Your task to perform on an android device: Open Google Maps Image 0: 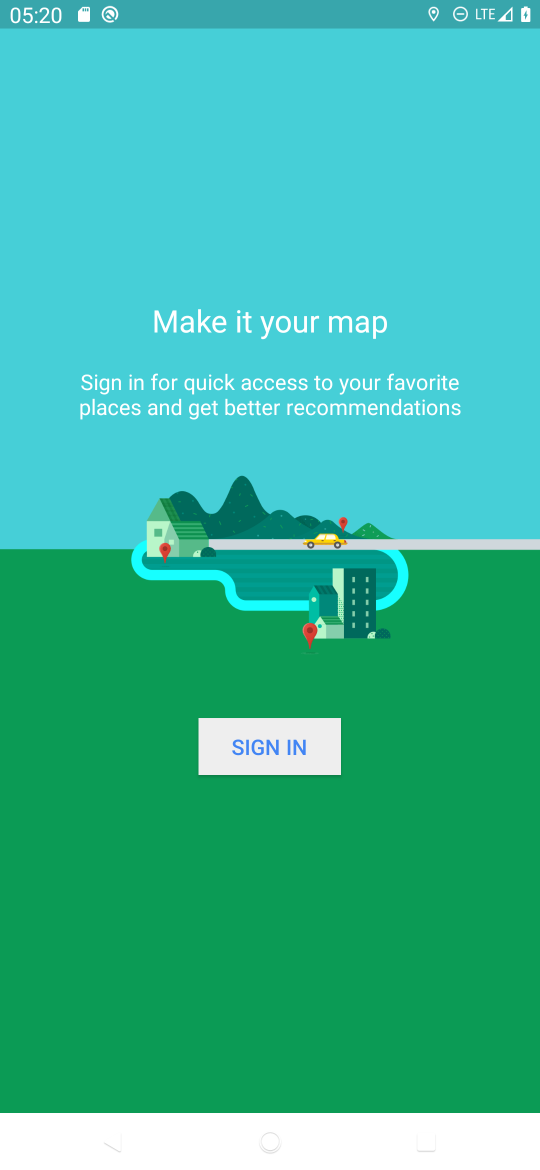
Step 0: press home button
Your task to perform on an android device: Open Google Maps Image 1: 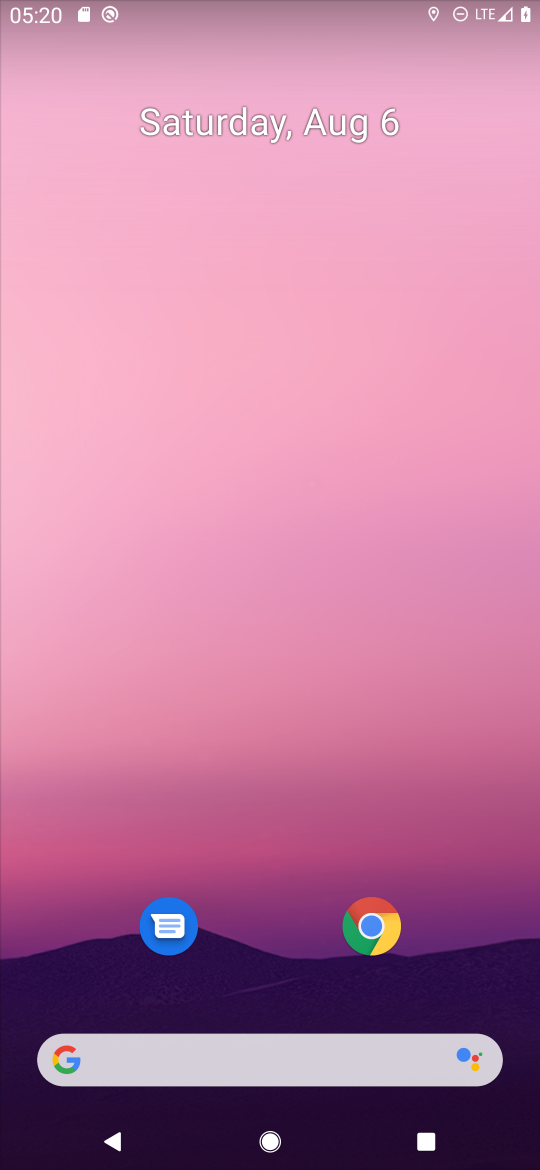
Step 1: drag from (273, 918) to (283, 318)
Your task to perform on an android device: Open Google Maps Image 2: 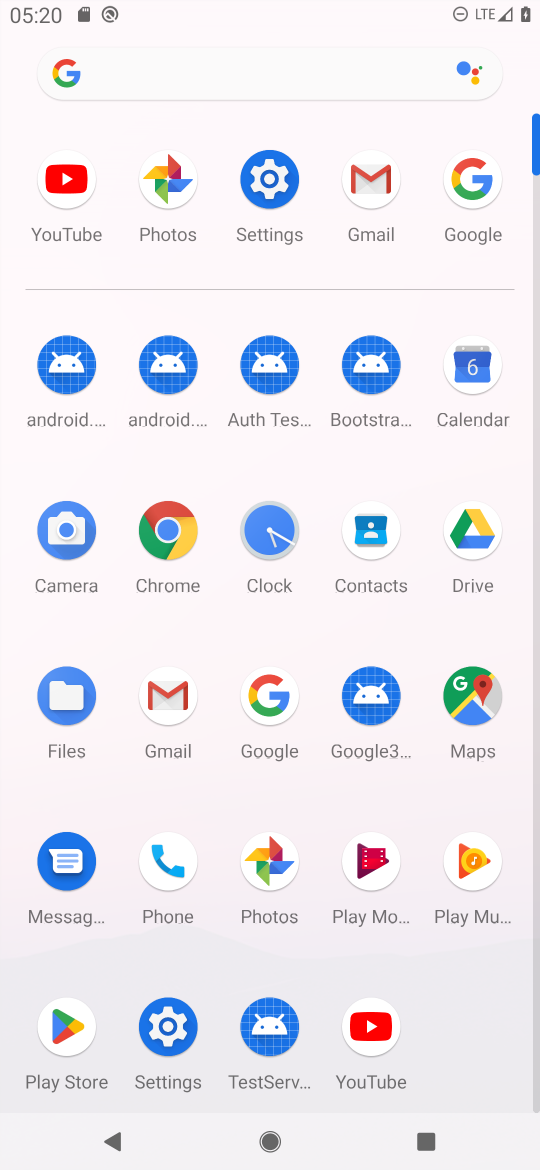
Step 2: click (468, 729)
Your task to perform on an android device: Open Google Maps Image 3: 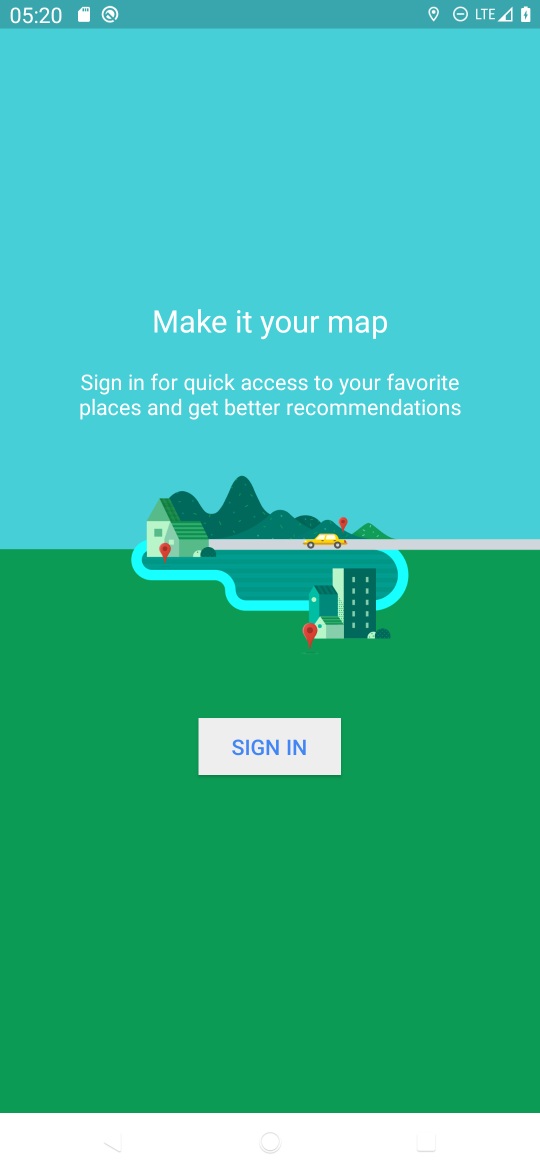
Step 3: task complete